Your task to perform on an android device: change alarm snooze length Image 0: 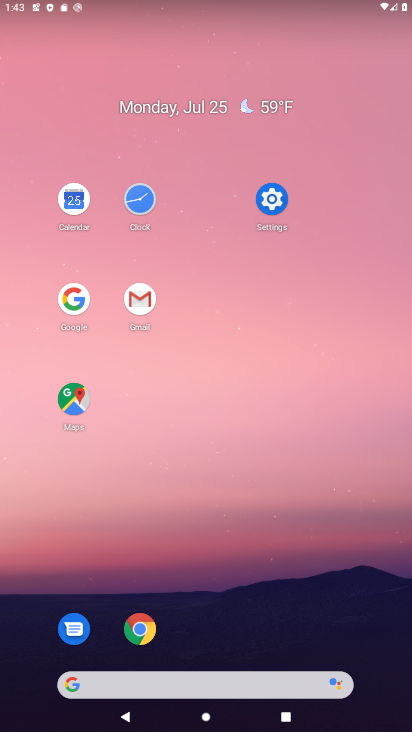
Step 0: click (132, 213)
Your task to perform on an android device: change alarm snooze length Image 1: 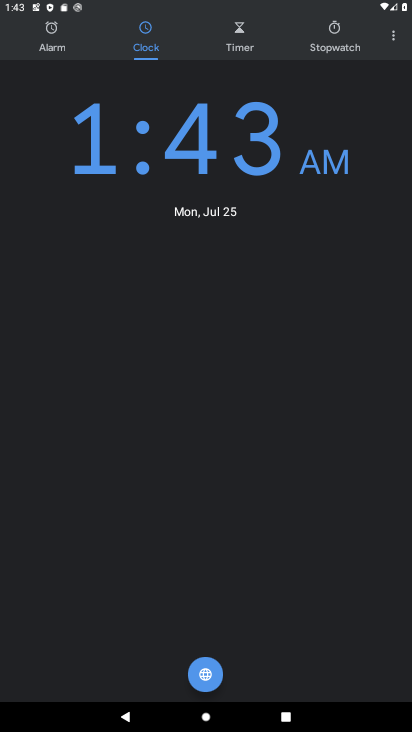
Step 1: click (400, 36)
Your task to perform on an android device: change alarm snooze length Image 2: 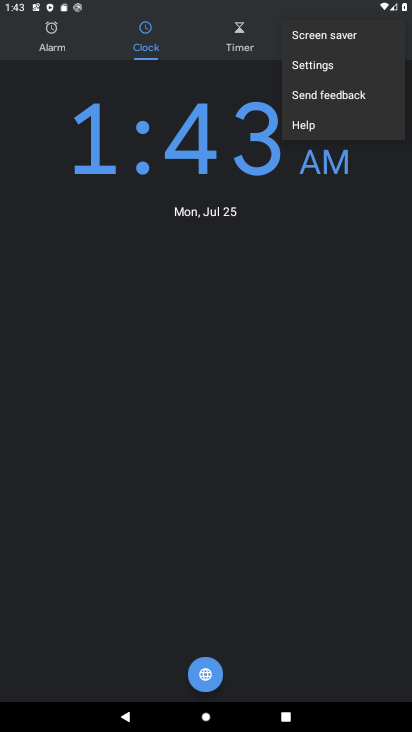
Step 2: click (349, 60)
Your task to perform on an android device: change alarm snooze length Image 3: 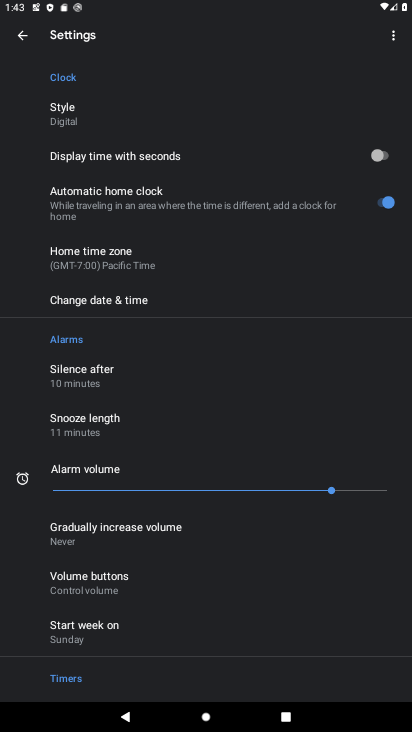
Step 3: click (101, 429)
Your task to perform on an android device: change alarm snooze length Image 4: 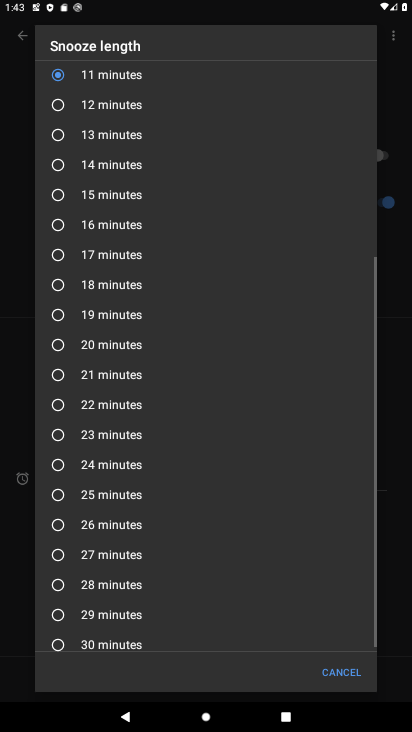
Step 4: click (63, 132)
Your task to perform on an android device: change alarm snooze length Image 5: 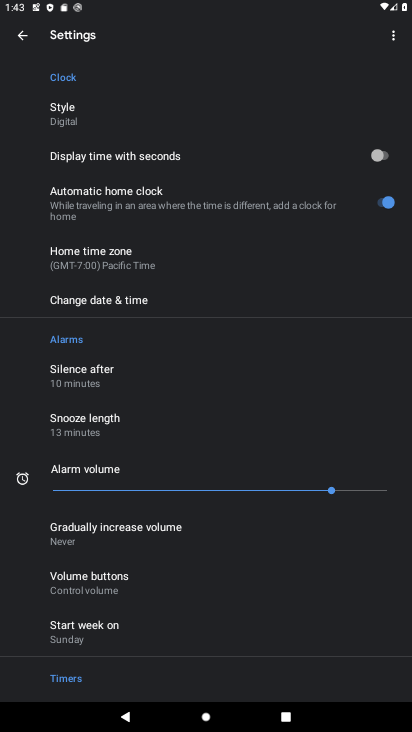
Step 5: task complete